Your task to perform on an android device: delete the emails in spam in the gmail app Image 0: 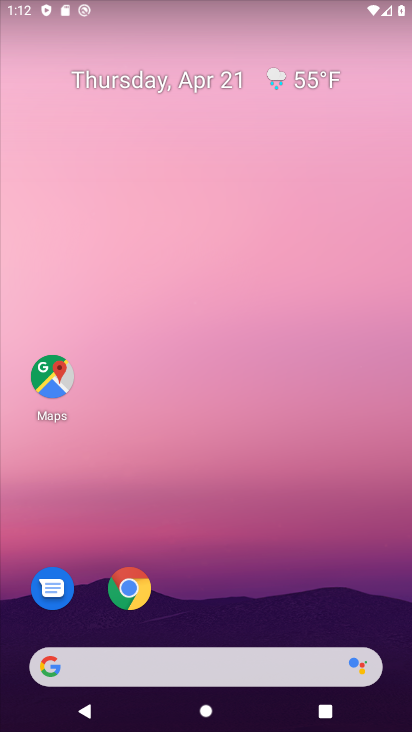
Step 0: drag from (181, 636) to (302, 140)
Your task to perform on an android device: delete the emails in spam in the gmail app Image 1: 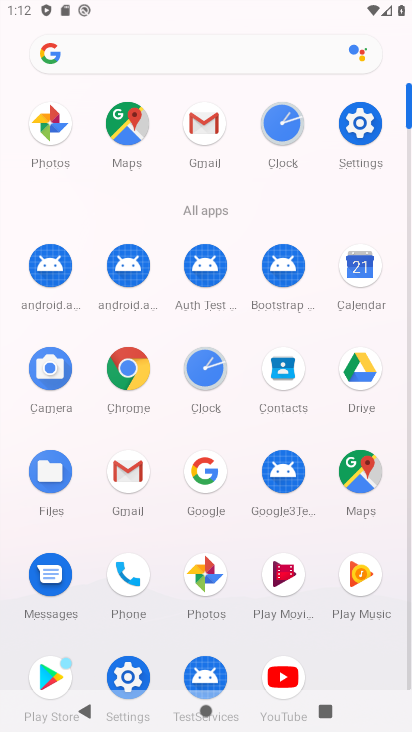
Step 1: click (124, 483)
Your task to perform on an android device: delete the emails in spam in the gmail app Image 2: 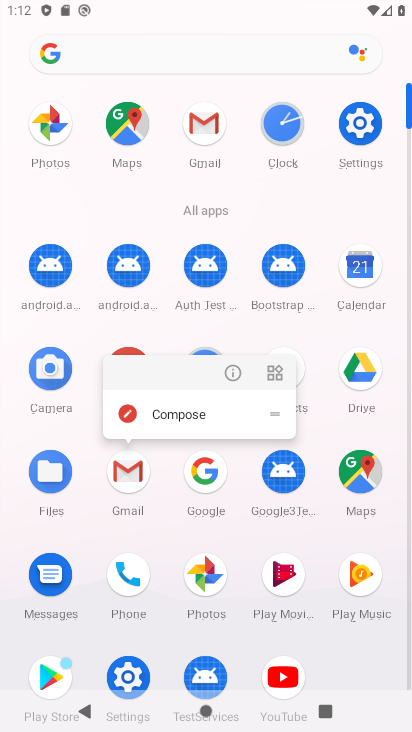
Step 2: click (124, 474)
Your task to perform on an android device: delete the emails in spam in the gmail app Image 3: 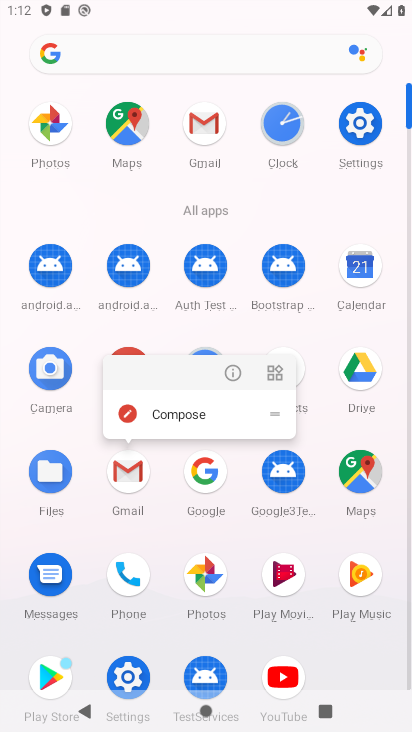
Step 3: click (127, 472)
Your task to perform on an android device: delete the emails in spam in the gmail app Image 4: 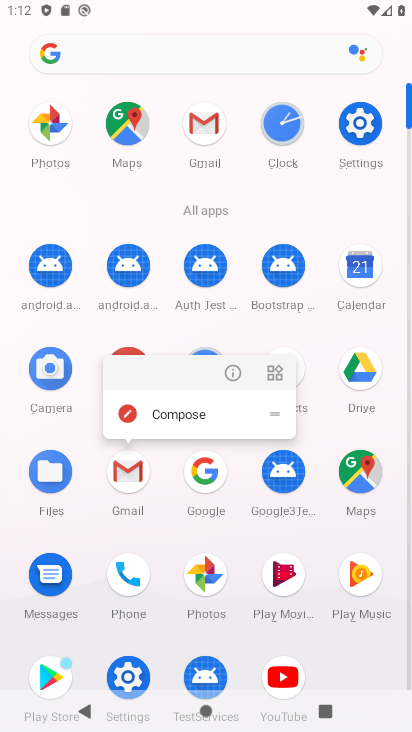
Step 4: click (128, 472)
Your task to perform on an android device: delete the emails in spam in the gmail app Image 5: 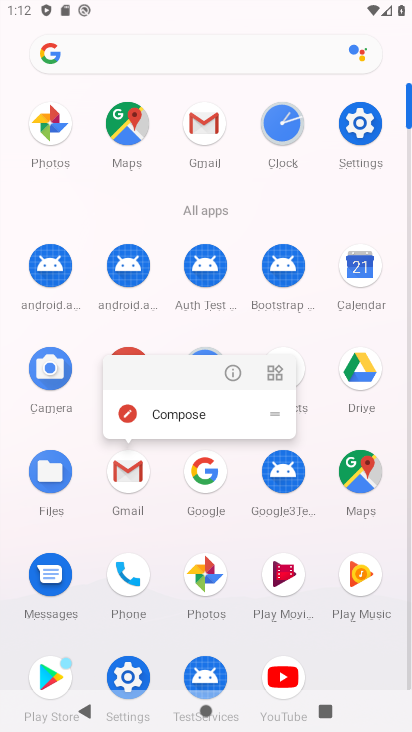
Step 5: click (194, 226)
Your task to perform on an android device: delete the emails in spam in the gmail app Image 6: 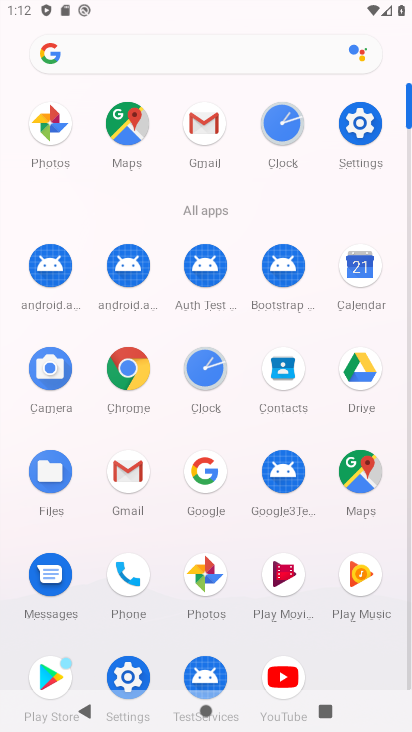
Step 6: click (194, 226)
Your task to perform on an android device: delete the emails in spam in the gmail app Image 7: 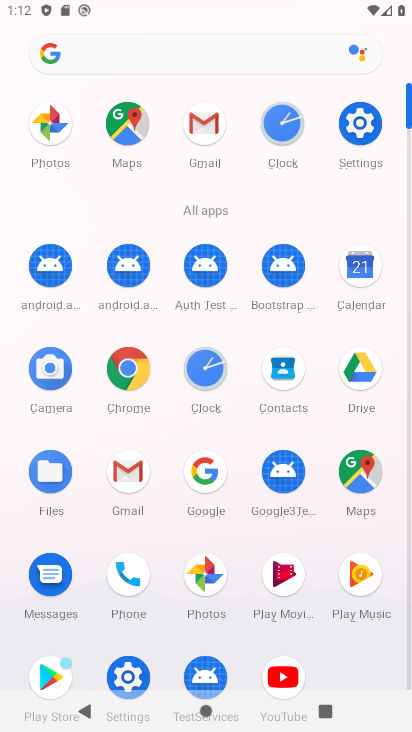
Step 7: click (122, 41)
Your task to perform on an android device: delete the emails in spam in the gmail app Image 8: 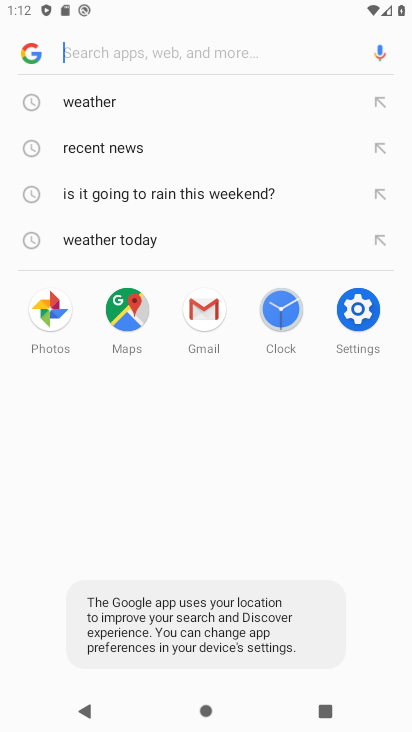
Step 8: click (123, 46)
Your task to perform on an android device: delete the emails in spam in the gmail app Image 9: 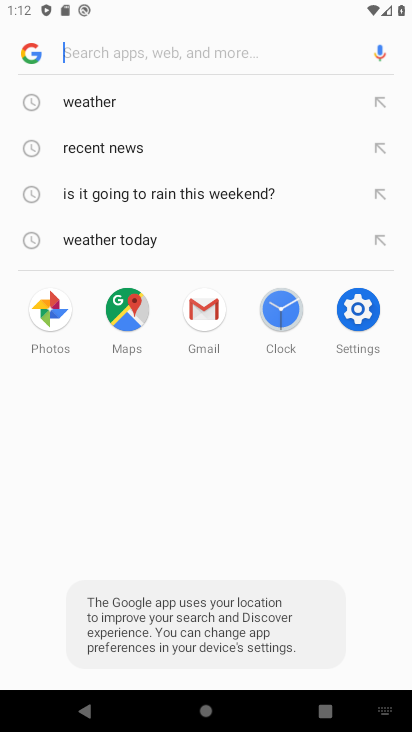
Step 9: press back button
Your task to perform on an android device: delete the emails in spam in the gmail app Image 10: 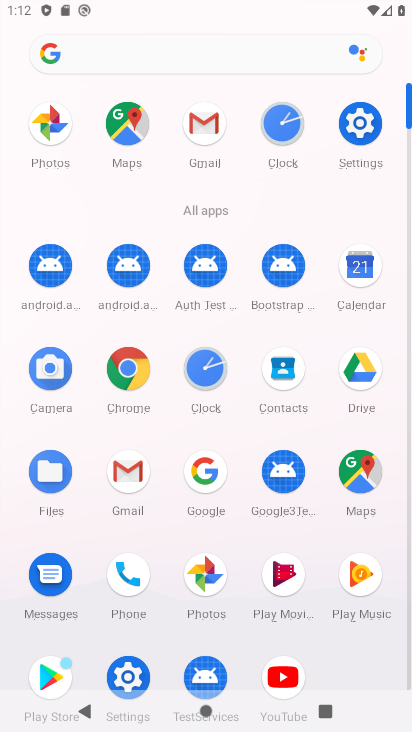
Step 10: click (140, 483)
Your task to perform on an android device: delete the emails in spam in the gmail app Image 11: 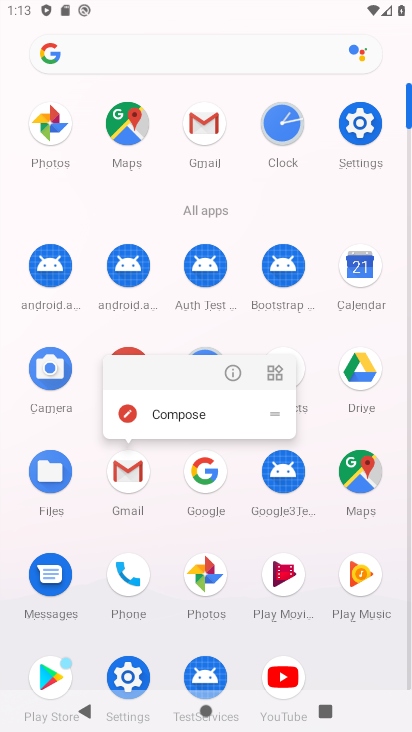
Step 11: click (147, 484)
Your task to perform on an android device: delete the emails in spam in the gmail app Image 12: 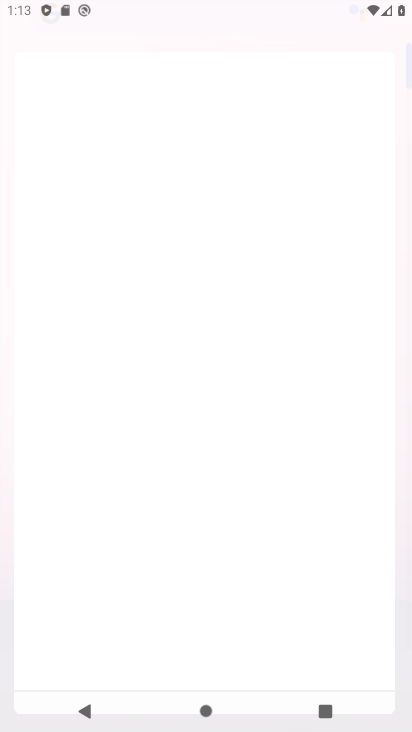
Step 12: click (130, 481)
Your task to perform on an android device: delete the emails in spam in the gmail app Image 13: 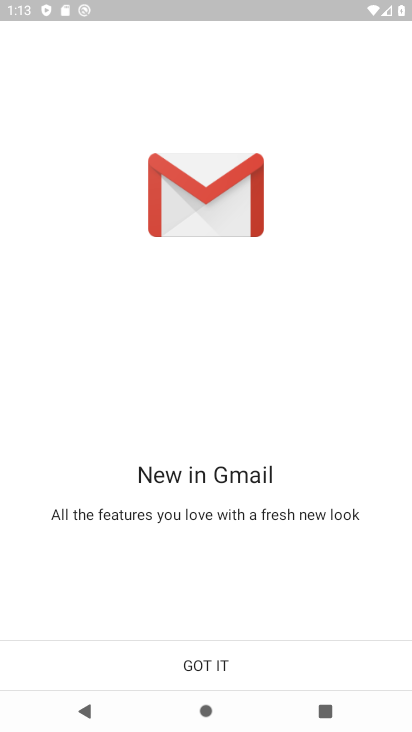
Step 13: click (250, 679)
Your task to perform on an android device: delete the emails in spam in the gmail app Image 14: 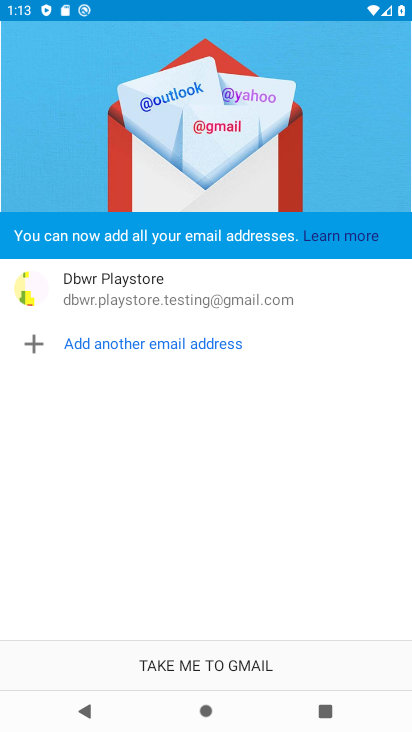
Step 14: click (247, 673)
Your task to perform on an android device: delete the emails in spam in the gmail app Image 15: 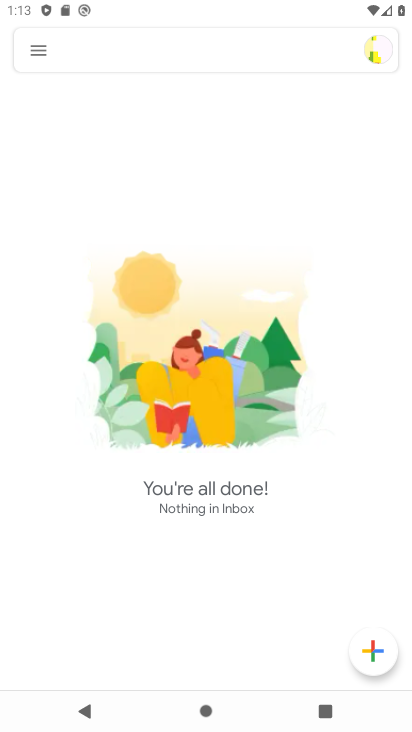
Step 15: click (42, 48)
Your task to perform on an android device: delete the emails in spam in the gmail app Image 16: 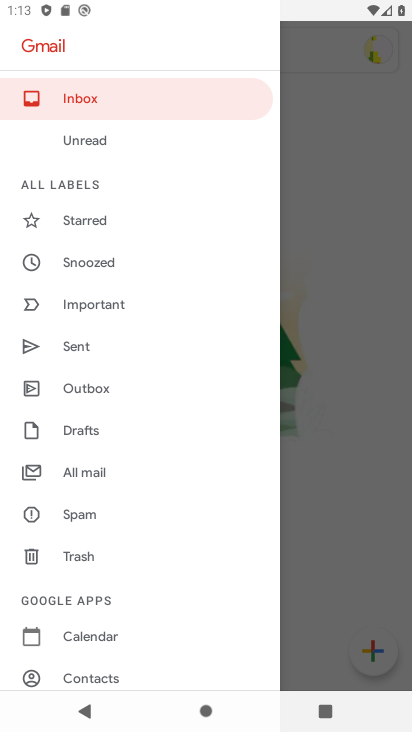
Step 16: click (111, 508)
Your task to perform on an android device: delete the emails in spam in the gmail app Image 17: 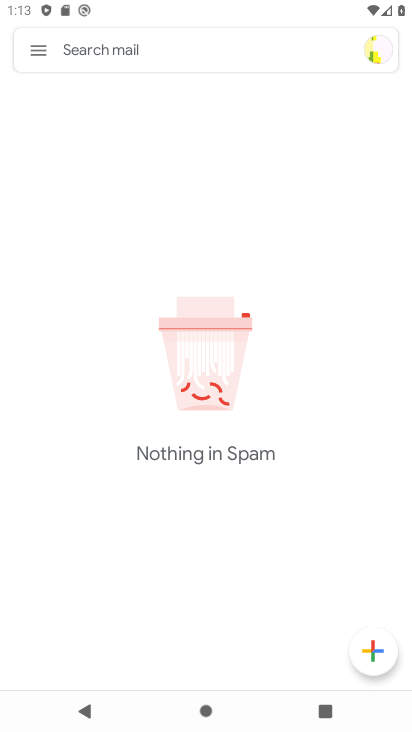
Step 17: task complete